Your task to perform on an android device: Show me the alarms in the clock app Image 0: 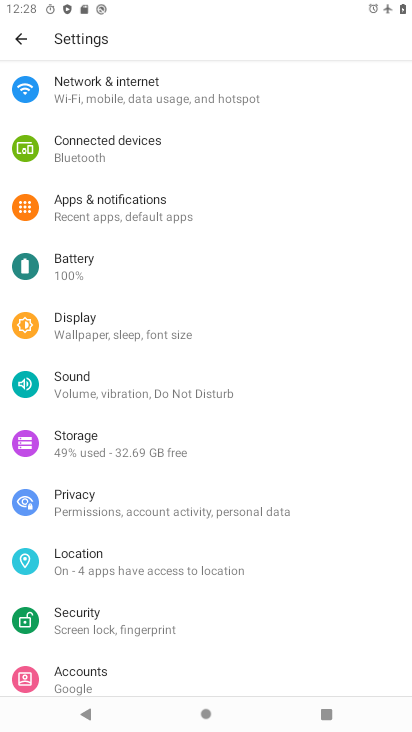
Step 0: press home button
Your task to perform on an android device: Show me the alarms in the clock app Image 1: 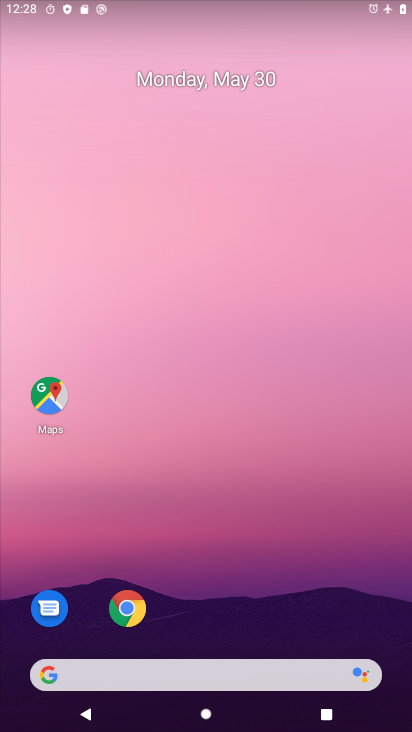
Step 1: drag from (234, 655) to (130, 7)
Your task to perform on an android device: Show me the alarms in the clock app Image 2: 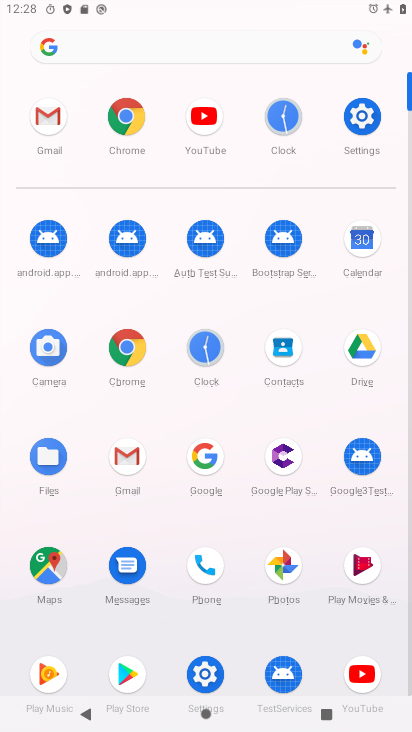
Step 2: click (196, 347)
Your task to perform on an android device: Show me the alarms in the clock app Image 3: 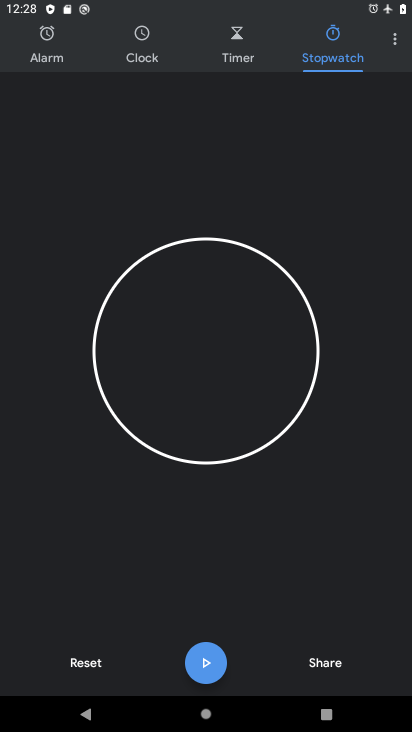
Step 3: click (51, 54)
Your task to perform on an android device: Show me the alarms in the clock app Image 4: 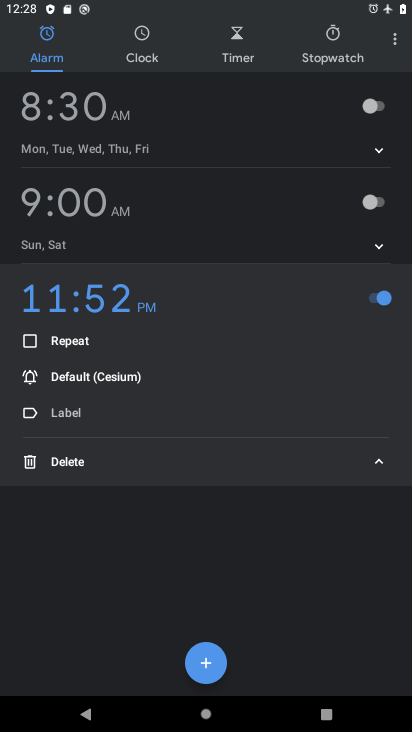
Step 4: task complete